Your task to perform on an android device: all mails in gmail Image 0: 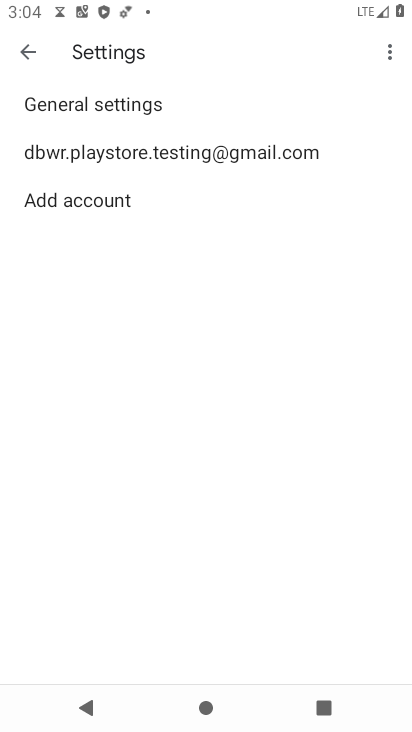
Step 0: press home button
Your task to perform on an android device: all mails in gmail Image 1: 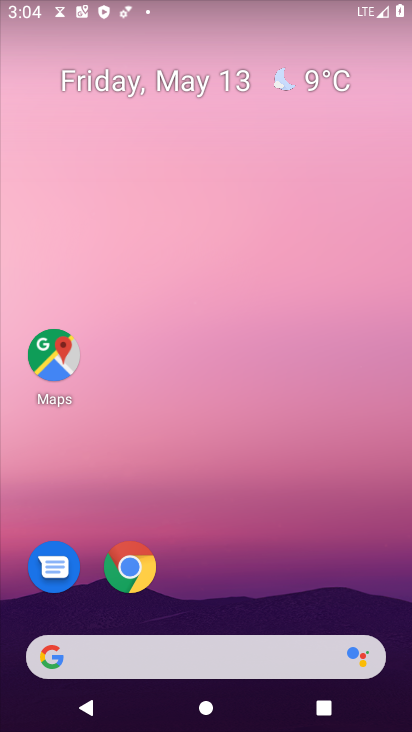
Step 1: drag from (251, 549) to (293, 12)
Your task to perform on an android device: all mails in gmail Image 2: 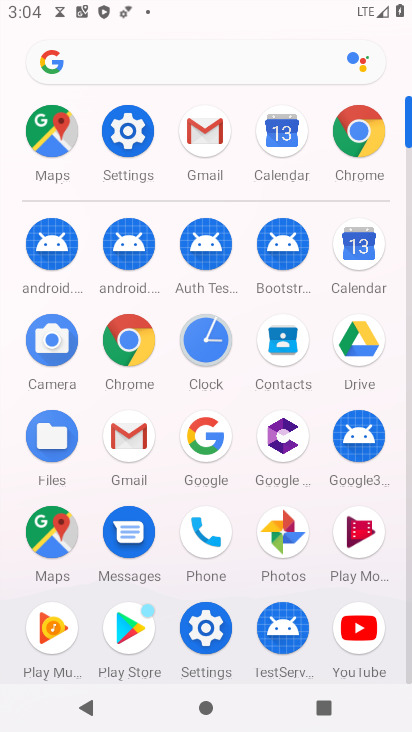
Step 2: click (201, 142)
Your task to perform on an android device: all mails in gmail Image 3: 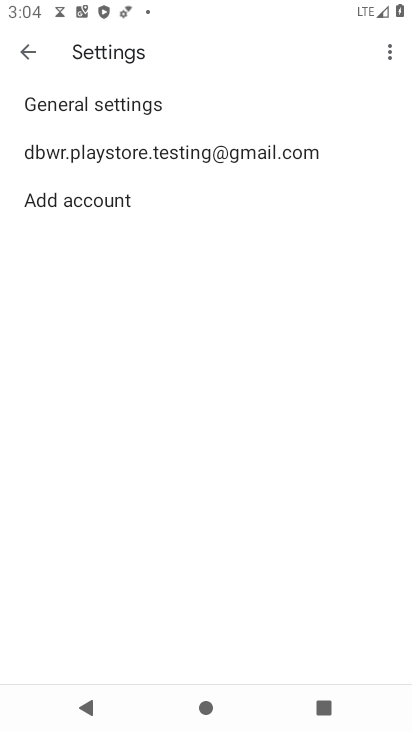
Step 3: click (32, 57)
Your task to perform on an android device: all mails in gmail Image 4: 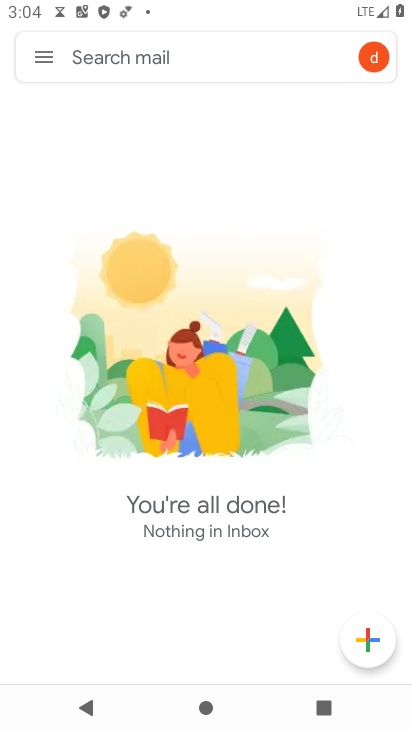
Step 4: click (51, 59)
Your task to perform on an android device: all mails in gmail Image 5: 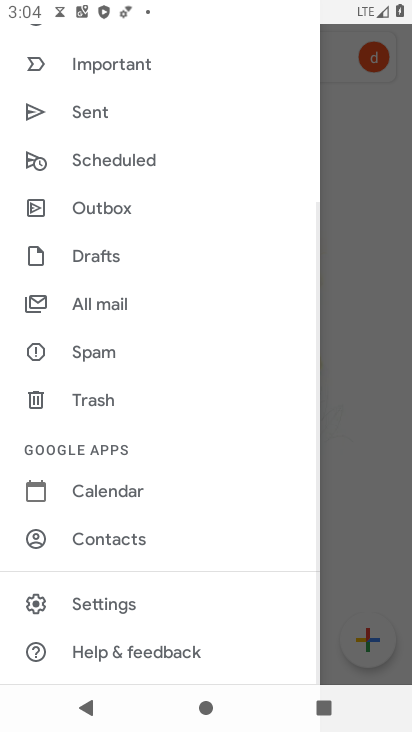
Step 5: click (76, 308)
Your task to perform on an android device: all mails in gmail Image 6: 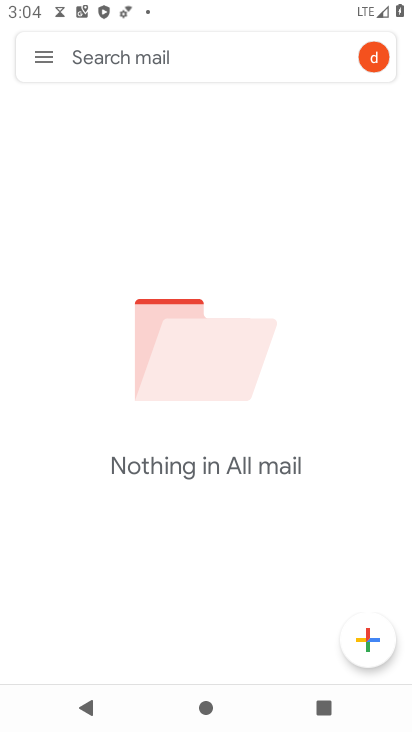
Step 6: task complete